Your task to perform on an android device: What's on my calendar for the rest of the week? Image 0: 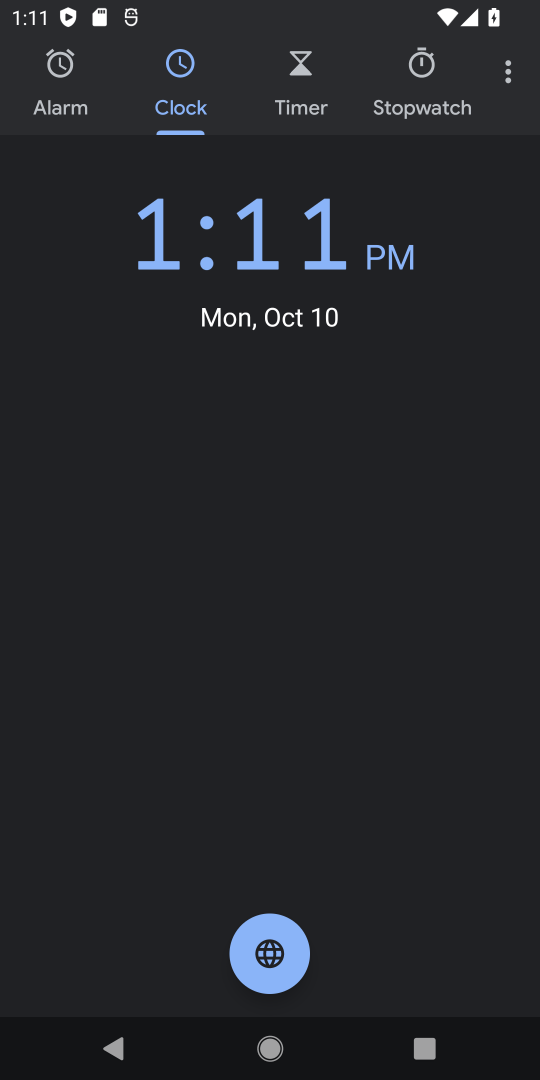
Step 0: press home button
Your task to perform on an android device: What's on my calendar for the rest of the week? Image 1: 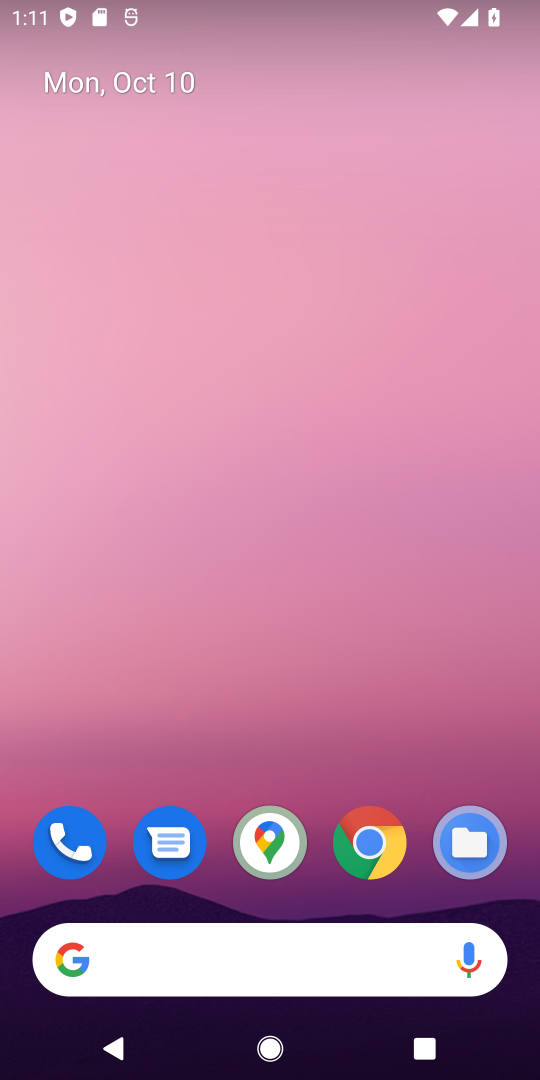
Step 1: drag from (285, 568) to (316, 325)
Your task to perform on an android device: What's on my calendar for the rest of the week? Image 2: 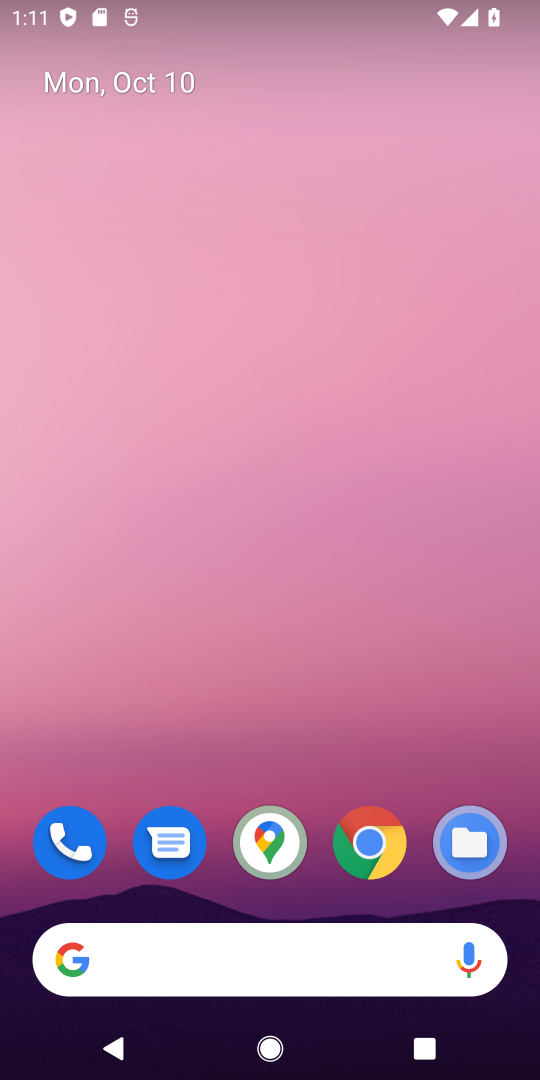
Step 2: drag from (403, 913) to (384, 34)
Your task to perform on an android device: What's on my calendar for the rest of the week? Image 3: 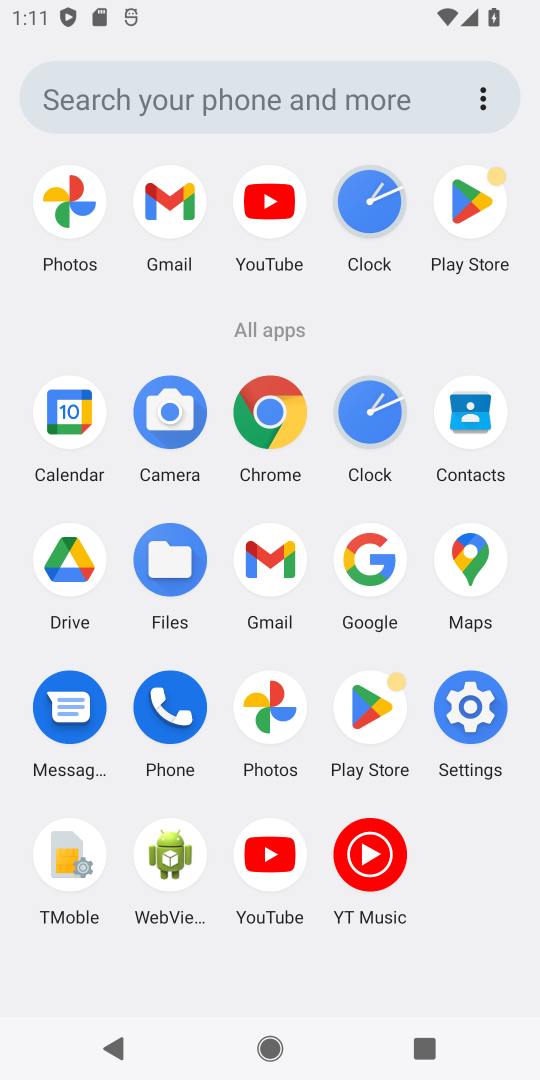
Step 3: click (63, 424)
Your task to perform on an android device: What's on my calendar for the rest of the week? Image 4: 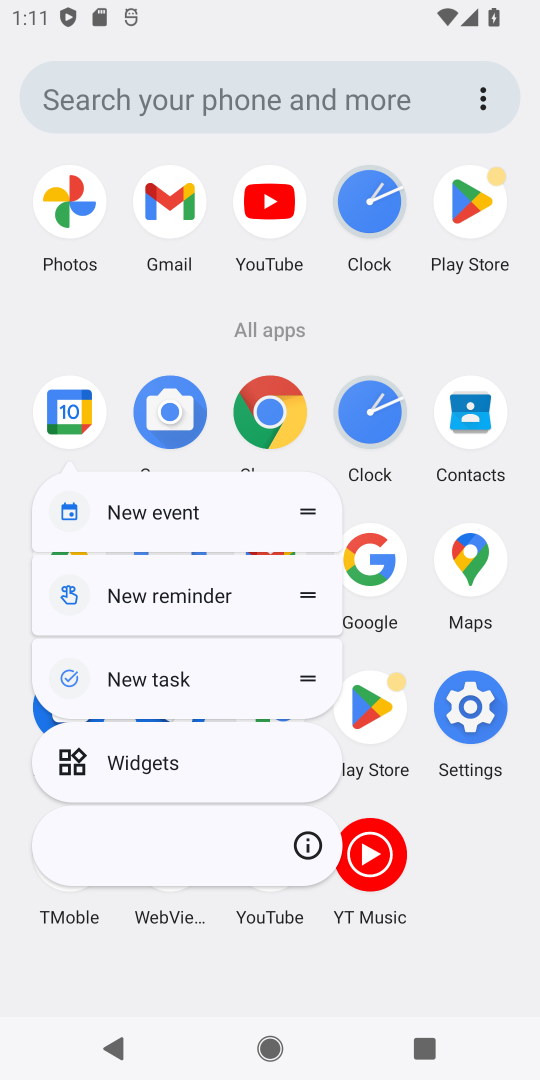
Step 4: click (63, 401)
Your task to perform on an android device: What's on my calendar for the rest of the week? Image 5: 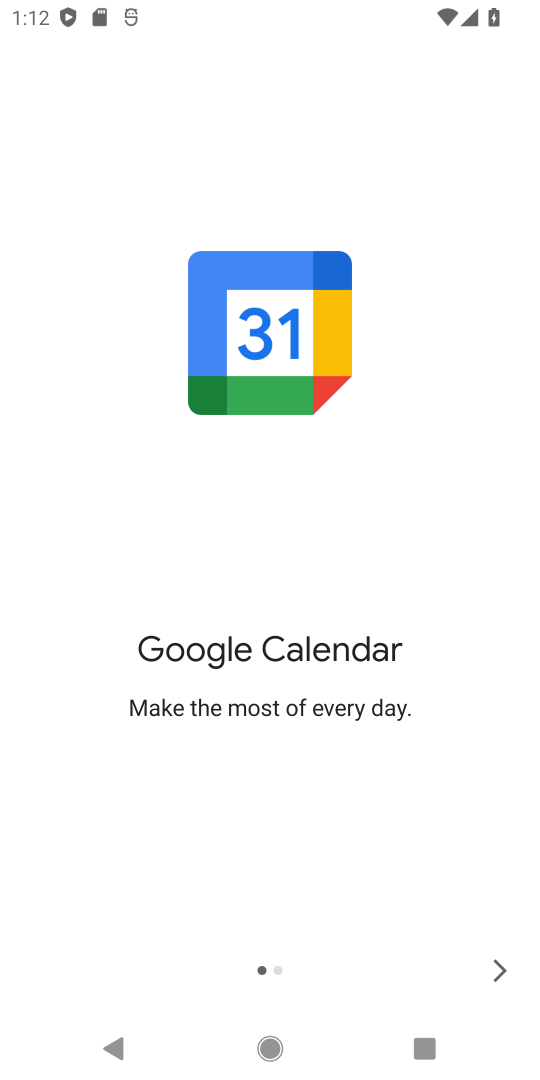
Step 5: click (498, 976)
Your task to perform on an android device: What's on my calendar for the rest of the week? Image 6: 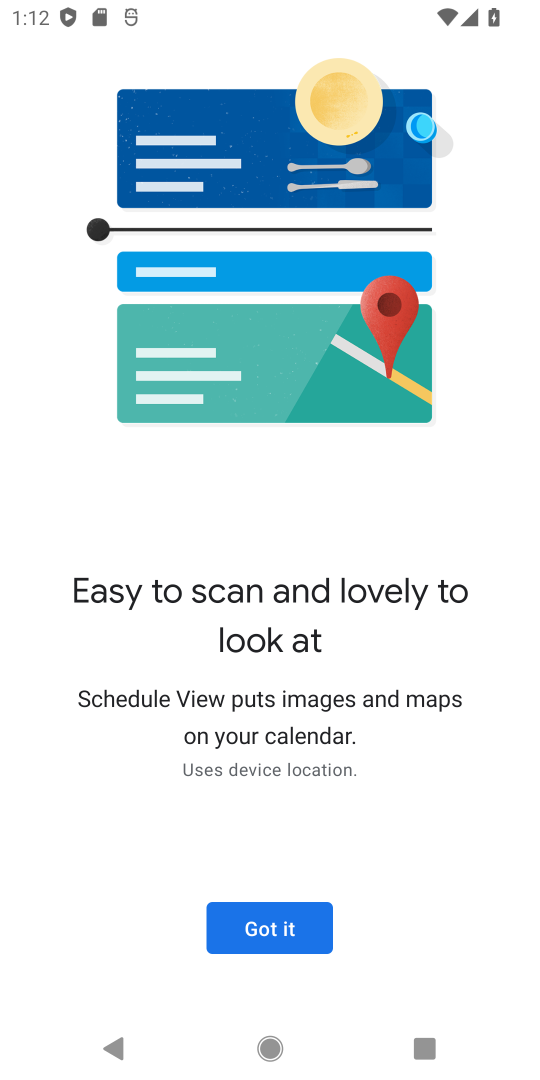
Step 6: click (278, 940)
Your task to perform on an android device: What's on my calendar for the rest of the week? Image 7: 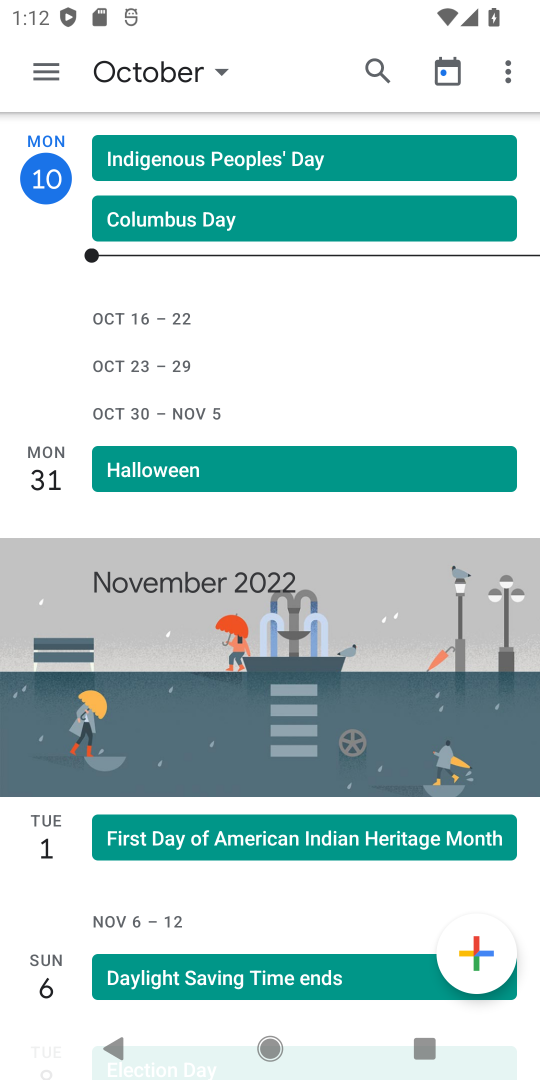
Step 7: task complete